Your task to perform on an android device: turn off airplane mode Image 0: 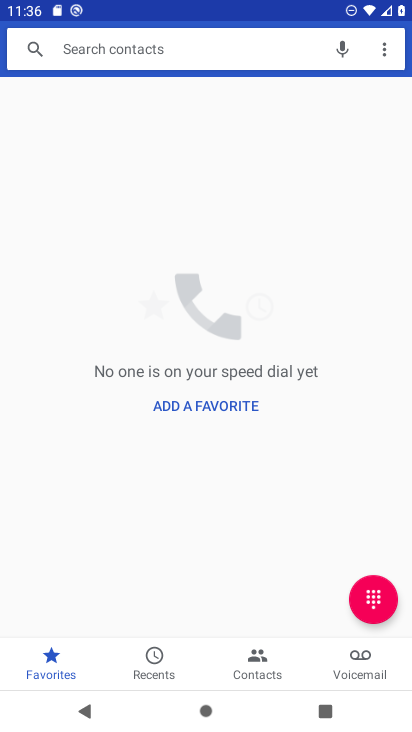
Step 0: press home button
Your task to perform on an android device: turn off airplane mode Image 1: 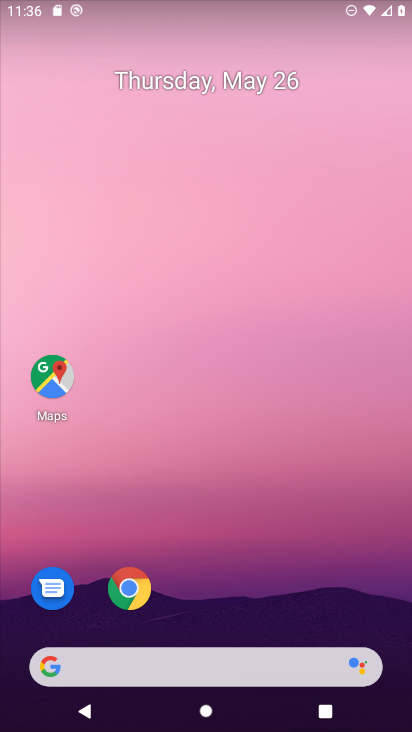
Step 1: drag from (388, 626) to (314, 67)
Your task to perform on an android device: turn off airplane mode Image 2: 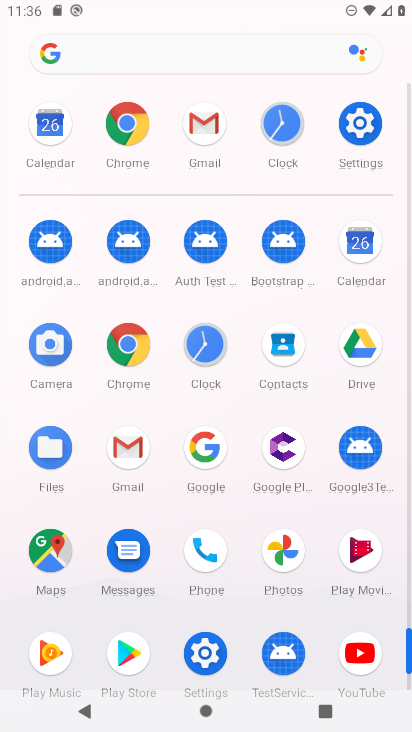
Step 2: click (204, 652)
Your task to perform on an android device: turn off airplane mode Image 3: 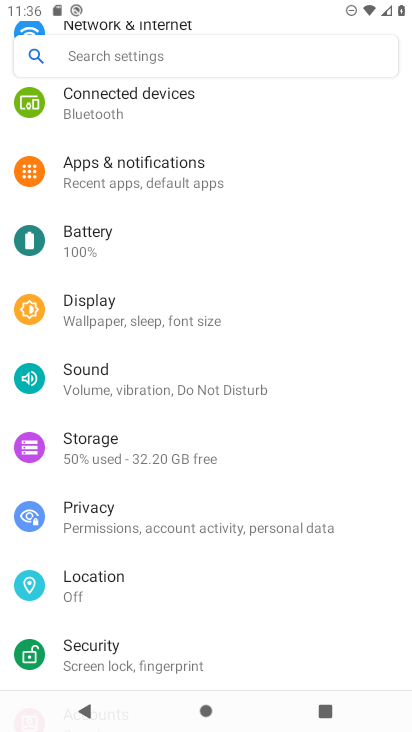
Step 3: drag from (336, 233) to (334, 450)
Your task to perform on an android device: turn off airplane mode Image 4: 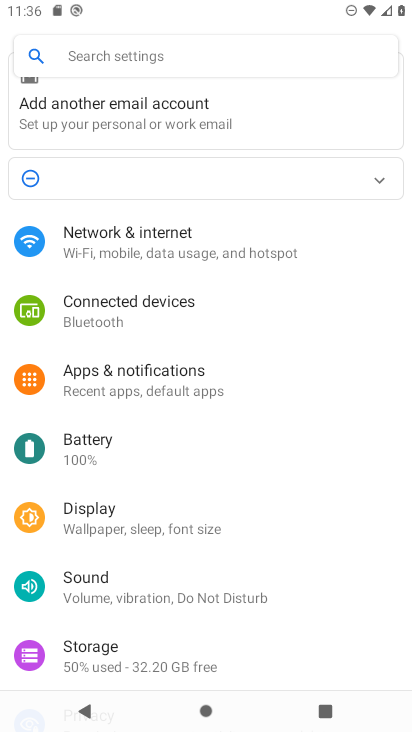
Step 4: click (105, 234)
Your task to perform on an android device: turn off airplane mode Image 5: 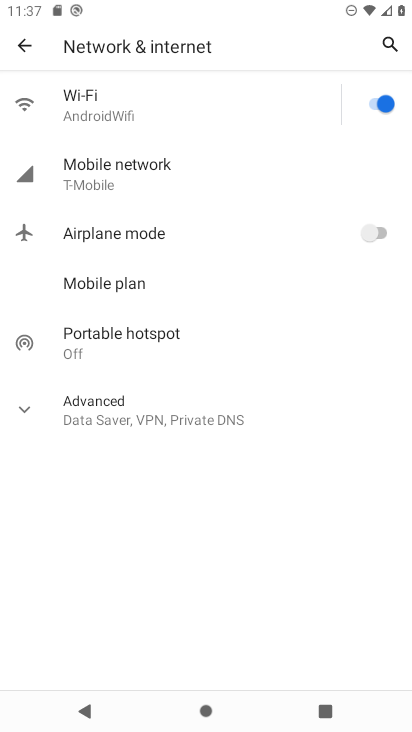
Step 5: task complete